Your task to perform on an android device: Open calendar and show me the fourth week of next month Image 0: 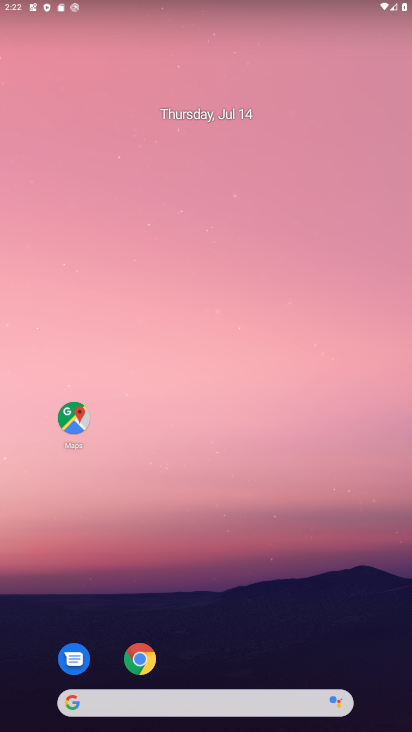
Step 0: drag from (252, 451) to (255, 0)
Your task to perform on an android device: Open calendar and show me the fourth week of next month Image 1: 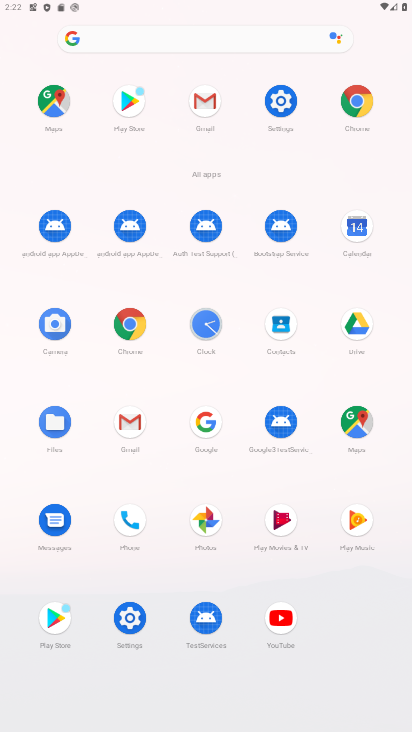
Step 1: click (354, 235)
Your task to perform on an android device: Open calendar and show me the fourth week of next month Image 2: 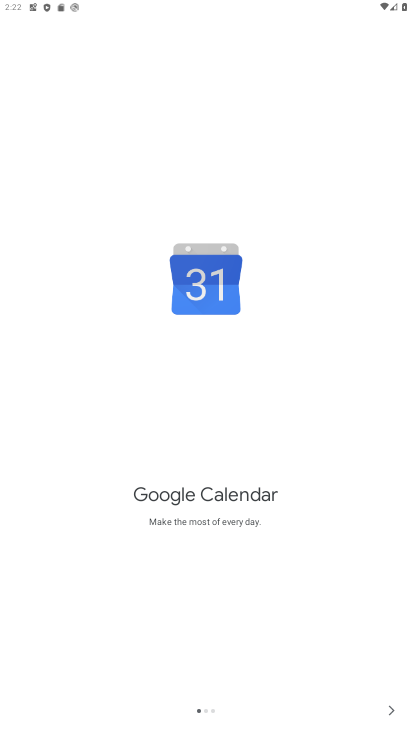
Step 2: click (391, 709)
Your task to perform on an android device: Open calendar and show me the fourth week of next month Image 3: 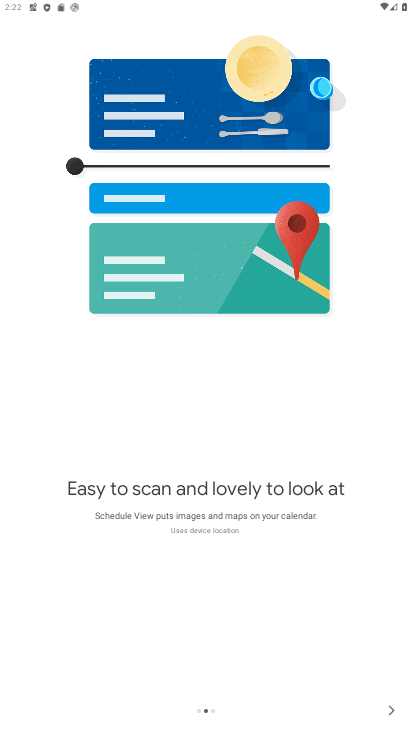
Step 3: click (391, 709)
Your task to perform on an android device: Open calendar and show me the fourth week of next month Image 4: 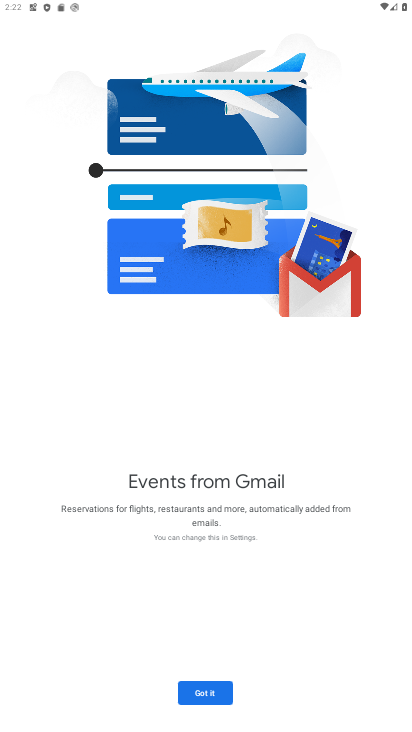
Step 4: click (186, 696)
Your task to perform on an android device: Open calendar and show me the fourth week of next month Image 5: 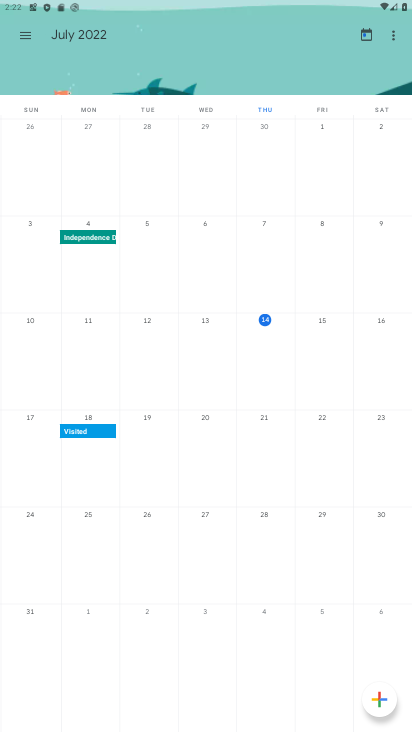
Step 5: drag from (337, 377) to (0, 419)
Your task to perform on an android device: Open calendar and show me the fourth week of next month Image 6: 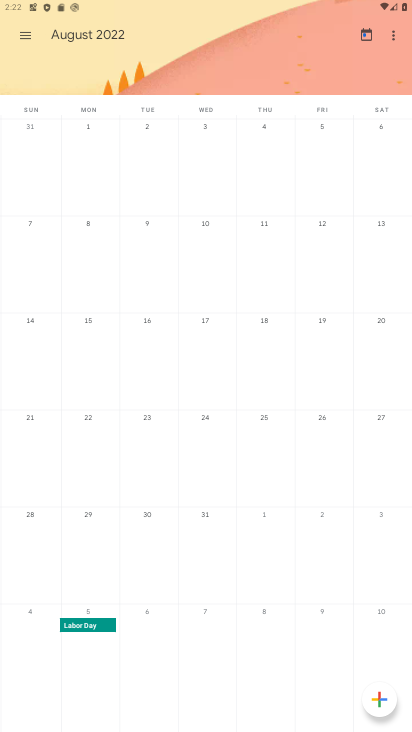
Step 6: click (273, 445)
Your task to perform on an android device: Open calendar and show me the fourth week of next month Image 7: 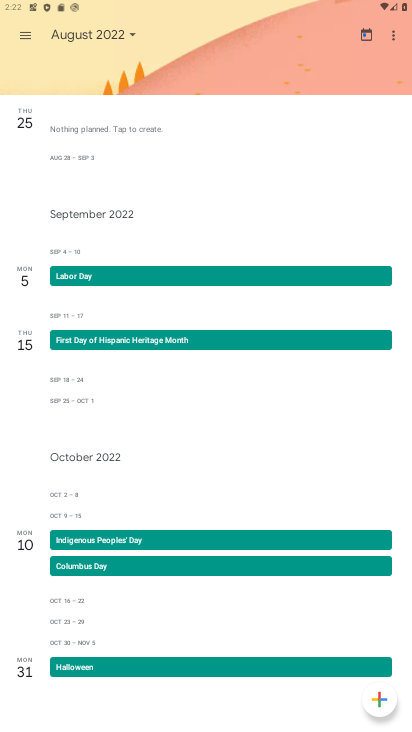
Step 7: click (133, 36)
Your task to perform on an android device: Open calendar and show me the fourth week of next month Image 8: 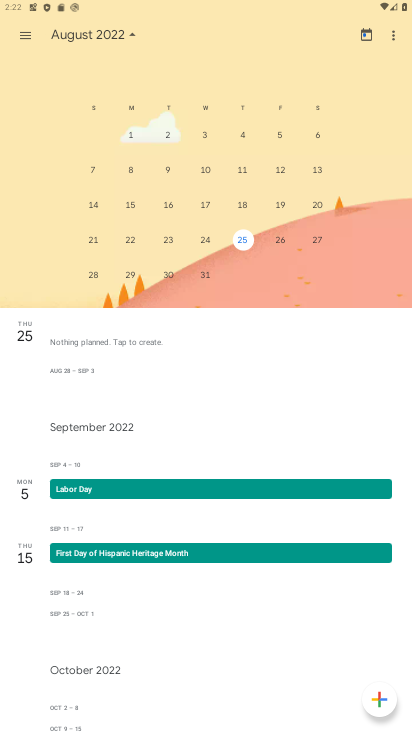
Step 8: click (281, 237)
Your task to perform on an android device: Open calendar and show me the fourth week of next month Image 9: 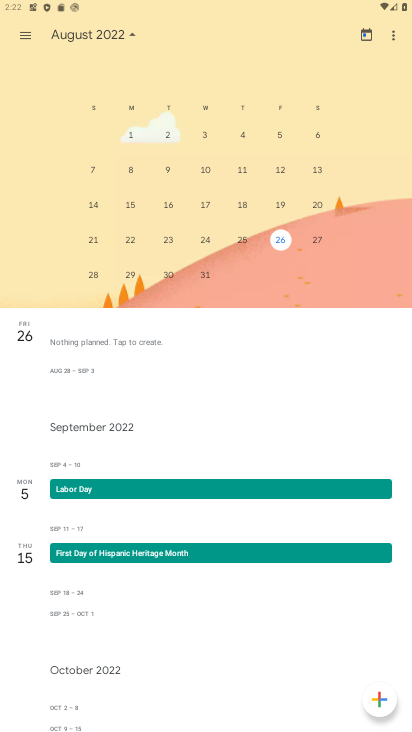
Step 9: click (323, 238)
Your task to perform on an android device: Open calendar and show me the fourth week of next month Image 10: 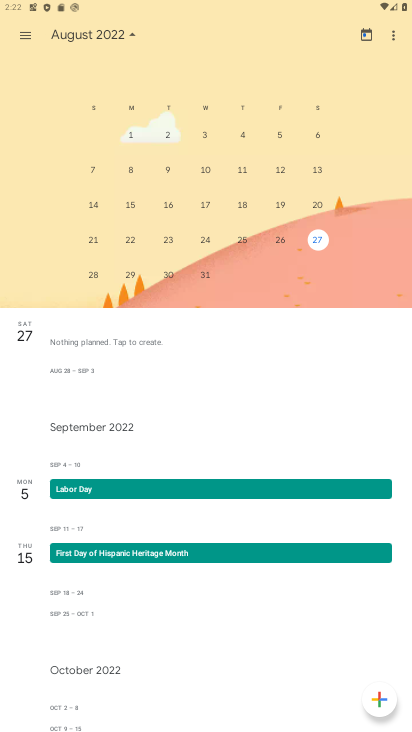
Step 10: click (86, 278)
Your task to perform on an android device: Open calendar and show me the fourth week of next month Image 11: 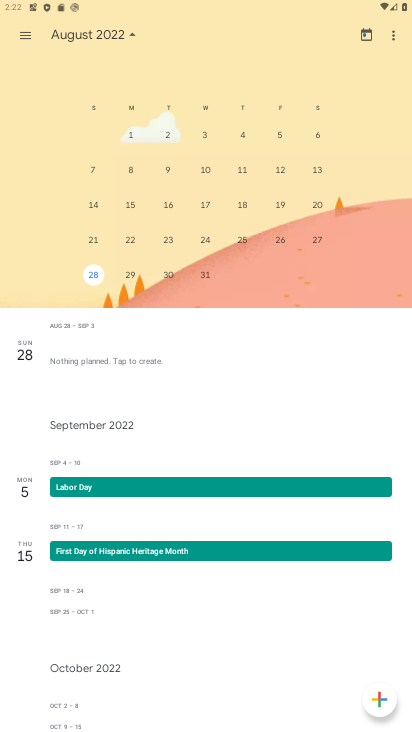
Step 11: click (132, 283)
Your task to perform on an android device: Open calendar and show me the fourth week of next month Image 12: 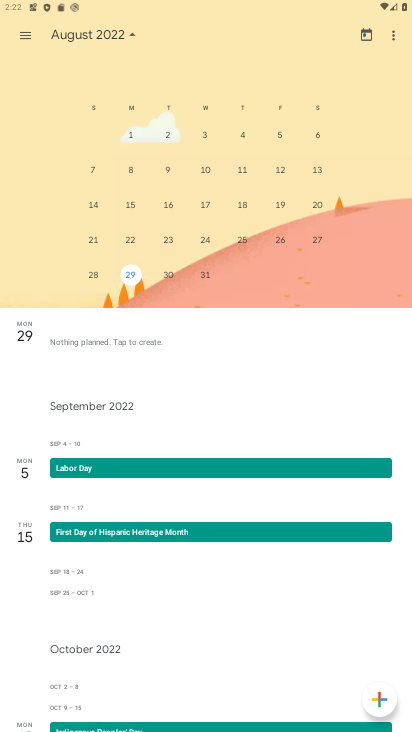
Step 12: click (167, 274)
Your task to perform on an android device: Open calendar and show me the fourth week of next month Image 13: 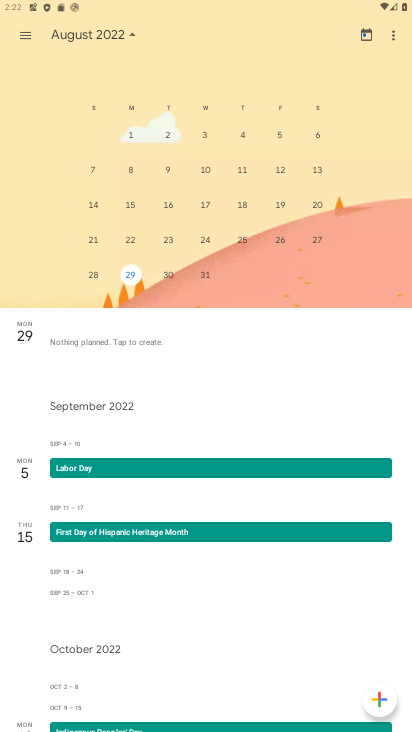
Step 13: click (207, 272)
Your task to perform on an android device: Open calendar and show me the fourth week of next month Image 14: 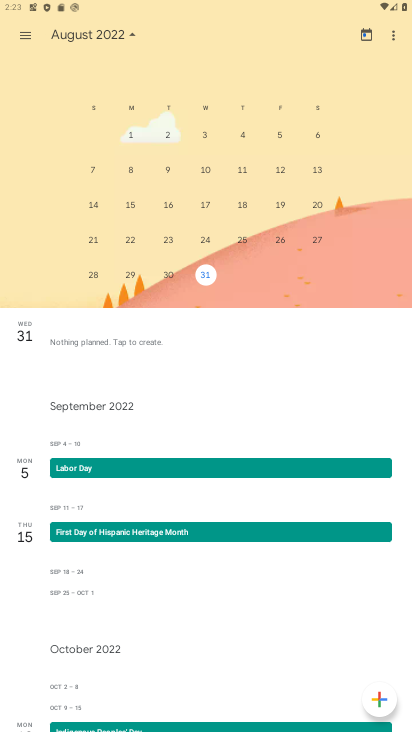
Step 14: task complete